Your task to perform on an android device: Search for seafood restaurants on Google Maps Image 0: 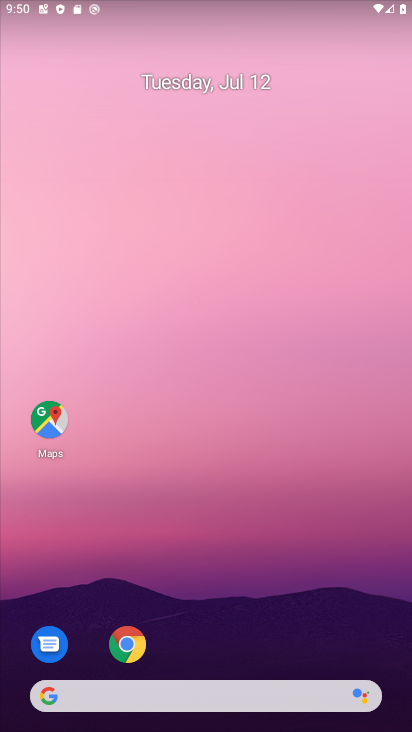
Step 0: click (51, 430)
Your task to perform on an android device: Search for seafood restaurants on Google Maps Image 1: 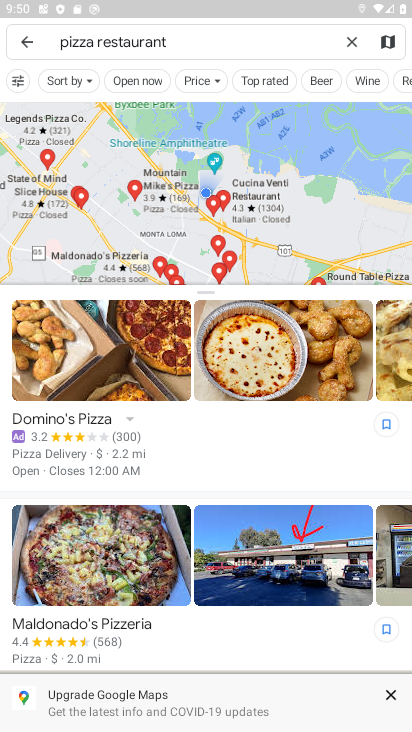
Step 1: click (349, 39)
Your task to perform on an android device: Search for seafood restaurants on Google Maps Image 2: 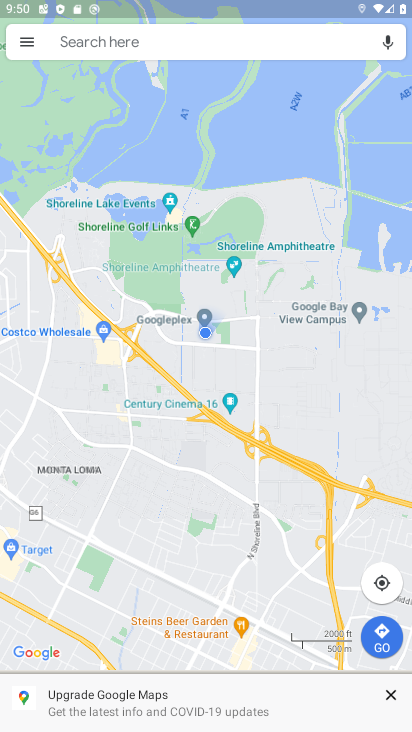
Step 2: click (201, 39)
Your task to perform on an android device: Search for seafood restaurants on Google Maps Image 3: 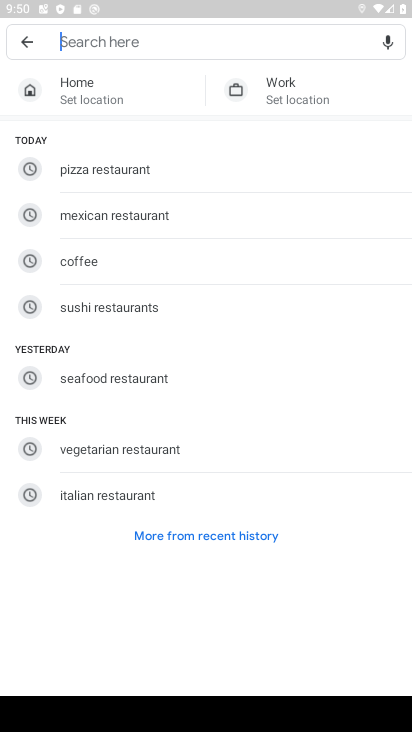
Step 3: click (163, 376)
Your task to perform on an android device: Search for seafood restaurants on Google Maps Image 4: 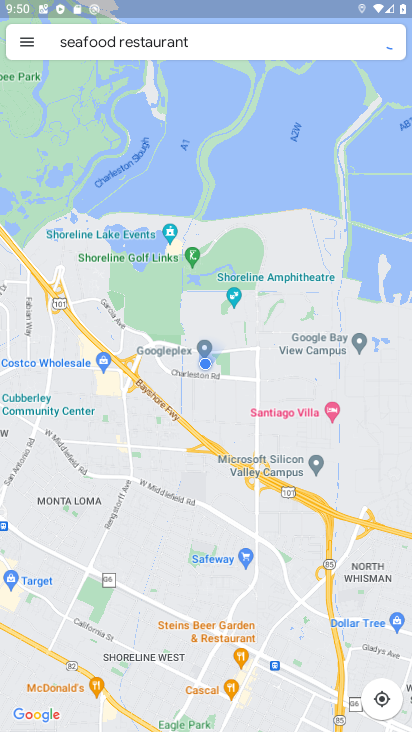
Step 4: task complete